Your task to perform on an android device: Check the news Image 0: 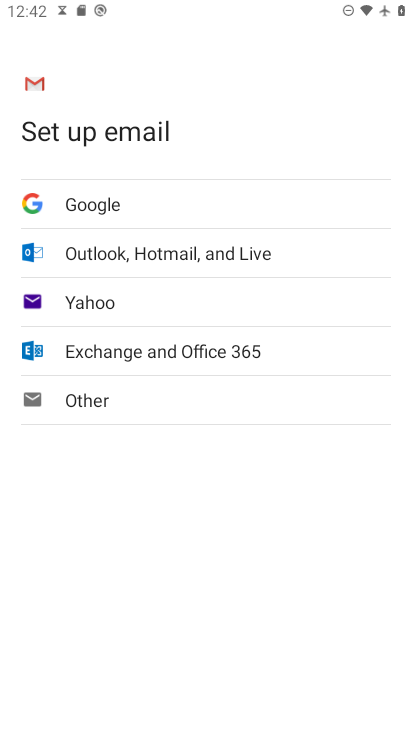
Step 0: press back button
Your task to perform on an android device: Check the news Image 1: 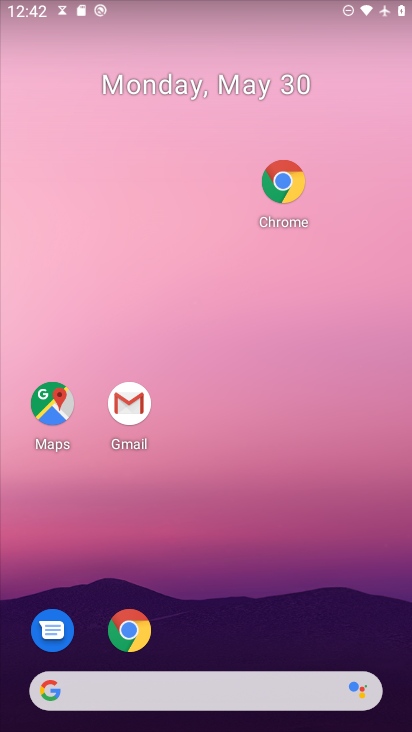
Step 1: task complete